Your task to perform on an android device: Is it going to rain tomorrow? Image 0: 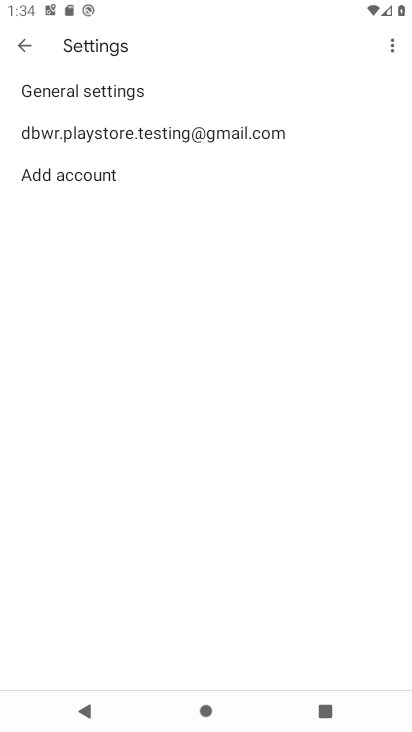
Step 0: click (26, 46)
Your task to perform on an android device: Is it going to rain tomorrow? Image 1: 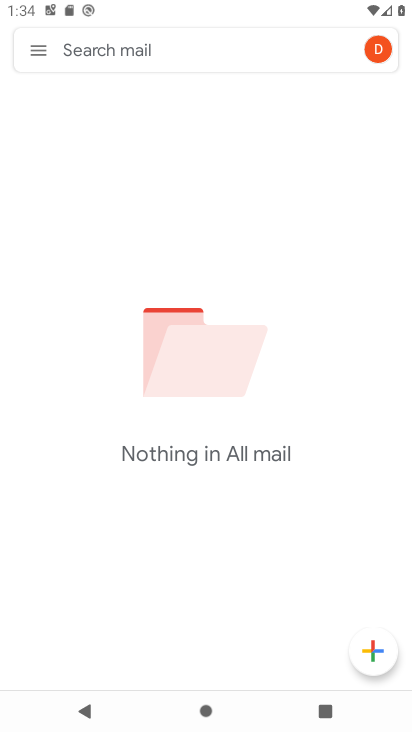
Step 1: click (48, 58)
Your task to perform on an android device: Is it going to rain tomorrow? Image 2: 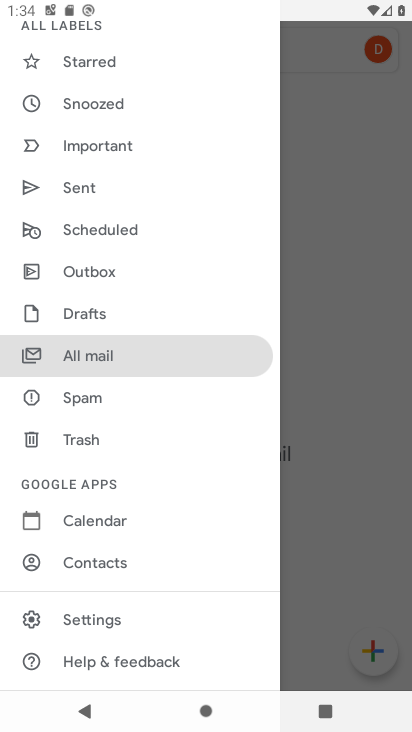
Step 2: press home button
Your task to perform on an android device: Is it going to rain tomorrow? Image 3: 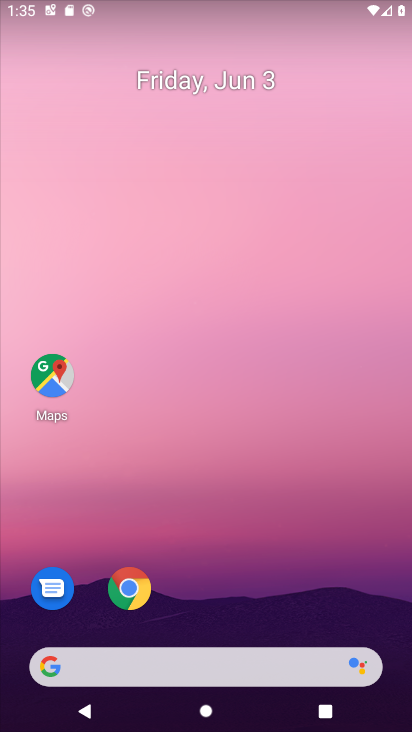
Step 3: drag from (182, 450) to (215, 11)
Your task to perform on an android device: Is it going to rain tomorrow? Image 4: 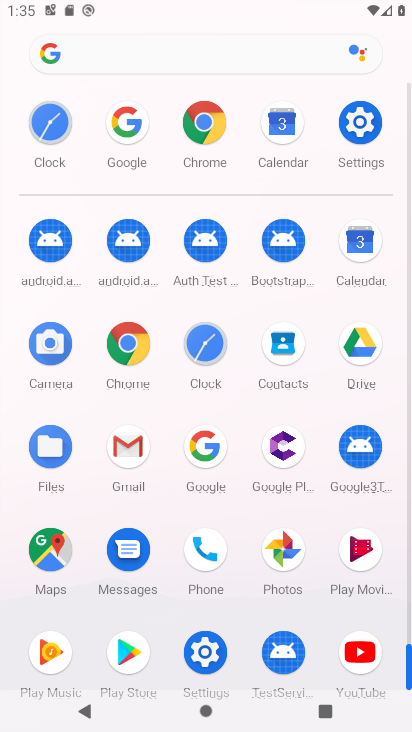
Step 4: click (209, 467)
Your task to perform on an android device: Is it going to rain tomorrow? Image 5: 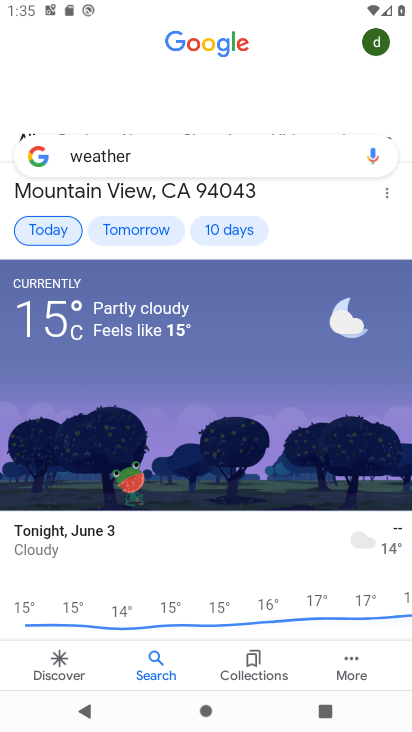
Step 5: click (135, 228)
Your task to perform on an android device: Is it going to rain tomorrow? Image 6: 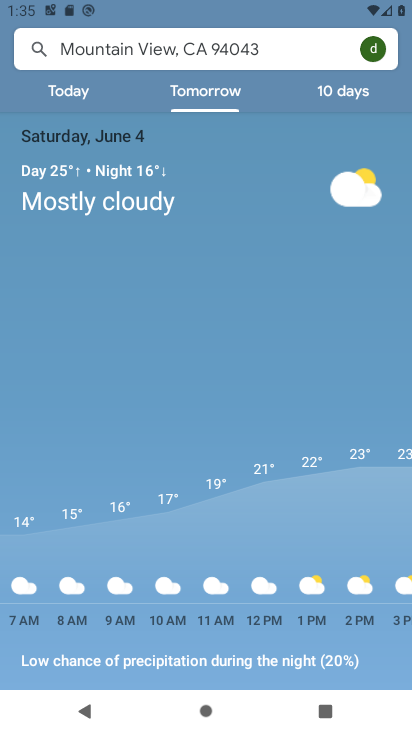
Step 6: task complete